Your task to perform on an android device: Open sound settings Image 0: 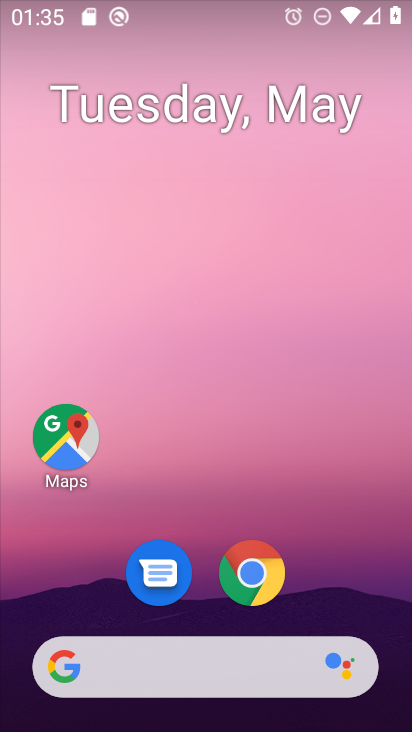
Step 0: drag from (236, 723) to (284, 11)
Your task to perform on an android device: Open sound settings Image 1: 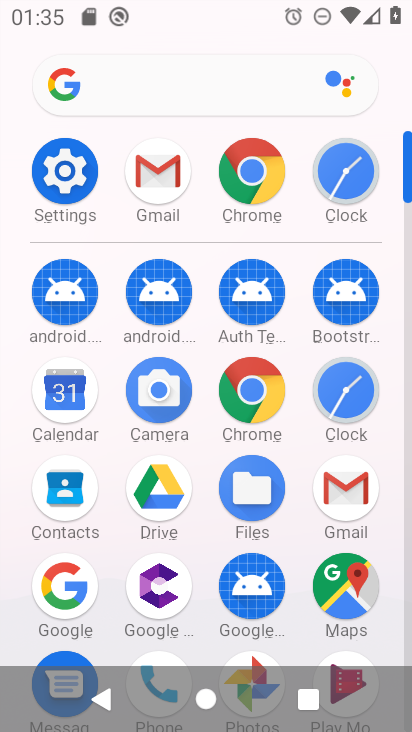
Step 1: click (66, 186)
Your task to perform on an android device: Open sound settings Image 2: 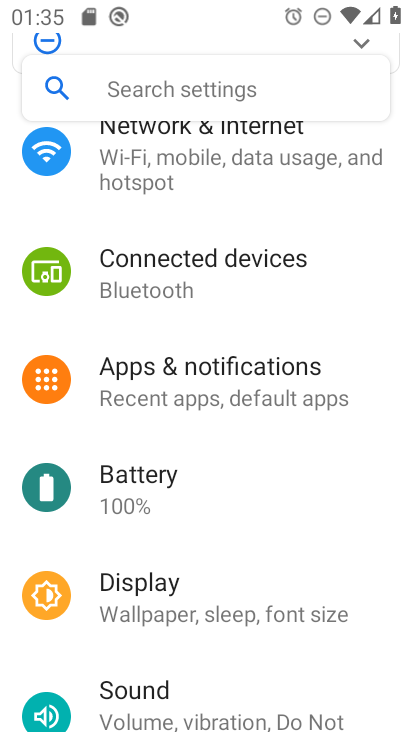
Step 2: click (149, 711)
Your task to perform on an android device: Open sound settings Image 3: 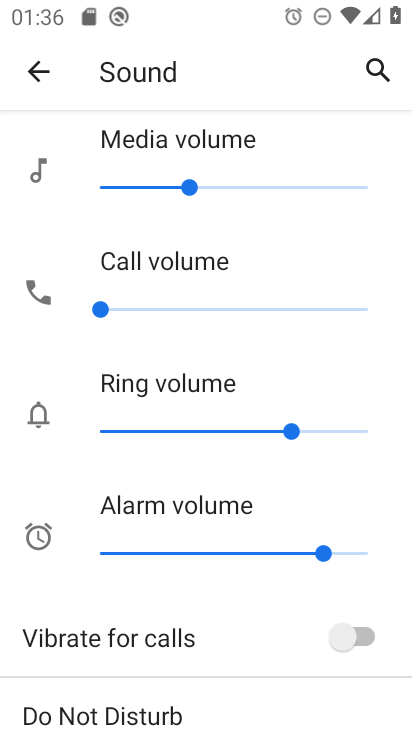
Step 3: task complete